Your task to perform on an android device: allow cookies in the chrome app Image 0: 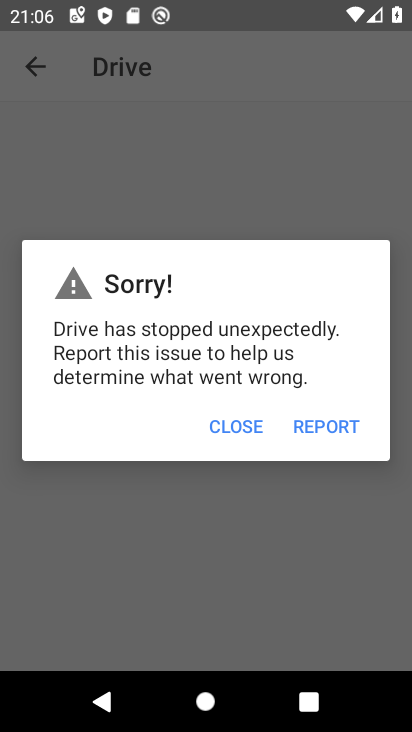
Step 0: press home button
Your task to perform on an android device: allow cookies in the chrome app Image 1: 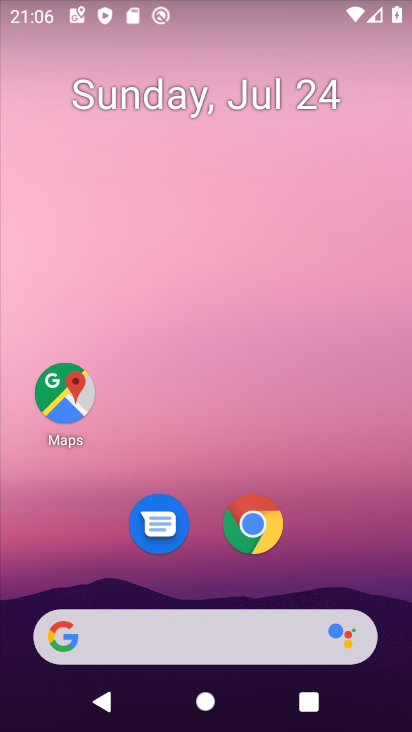
Step 1: click (253, 536)
Your task to perform on an android device: allow cookies in the chrome app Image 2: 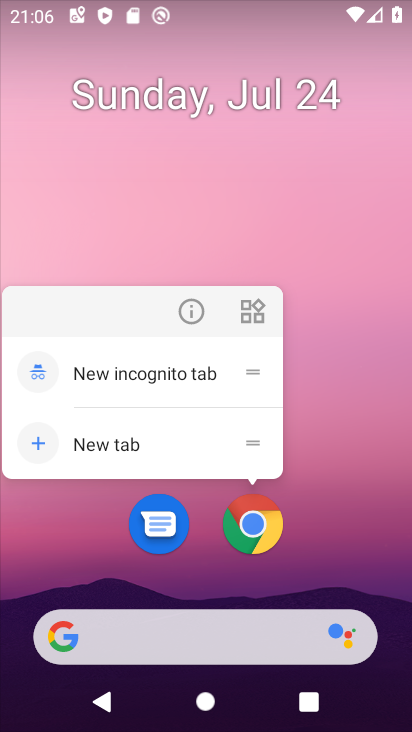
Step 2: click (256, 533)
Your task to perform on an android device: allow cookies in the chrome app Image 3: 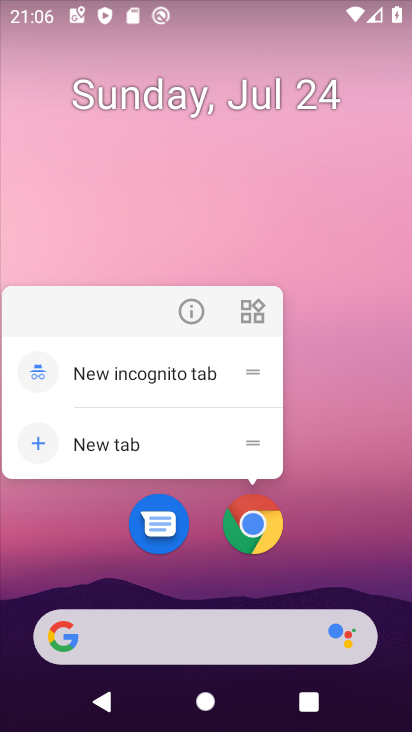
Step 3: click (256, 535)
Your task to perform on an android device: allow cookies in the chrome app Image 4: 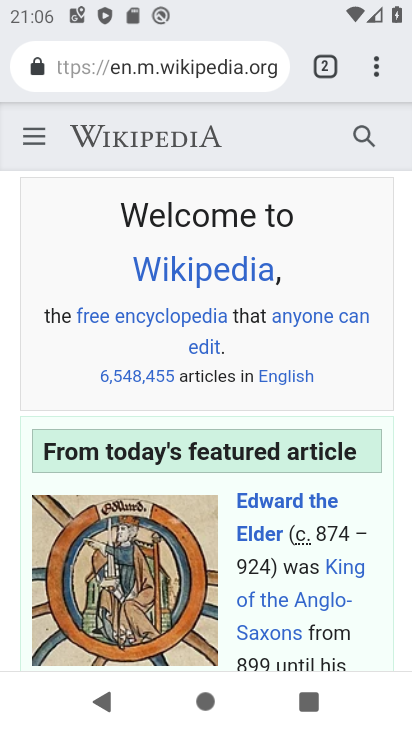
Step 4: drag from (377, 66) to (230, 524)
Your task to perform on an android device: allow cookies in the chrome app Image 5: 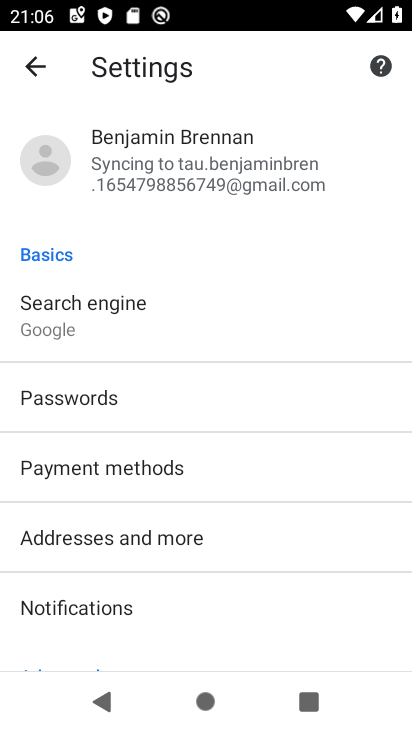
Step 5: drag from (195, 592) to (354, 317)
Your task to perform on an android device: allow cookies in the chrome app Image 6: 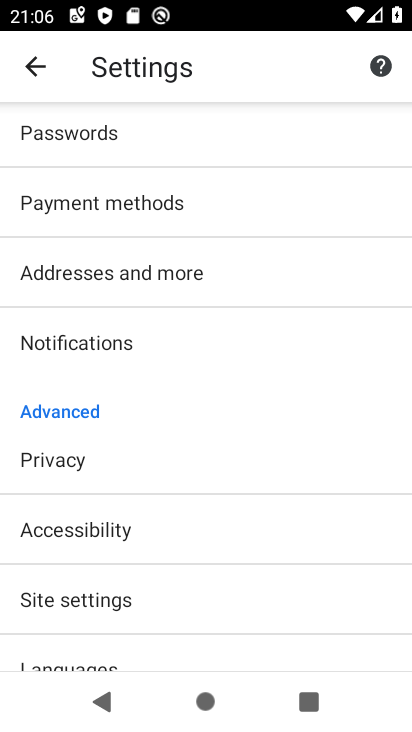
Step 6: click (87, 603)
Your task to perform on an android device: allow cookies in the chrome app Image 7: 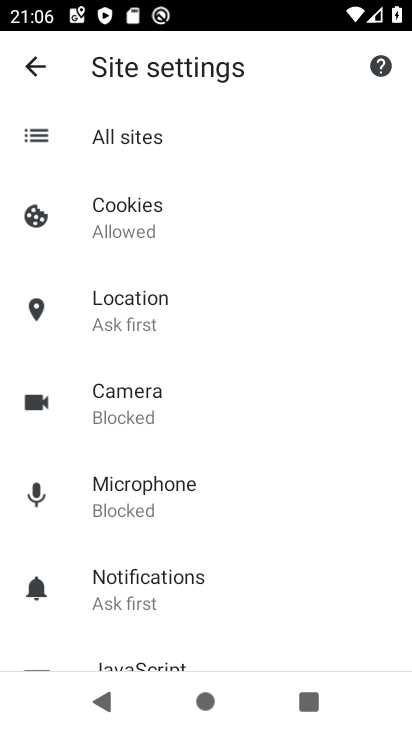
Step 7: click (143, 225)
Your task to perform on an android device: allow cookies in the chrome app Image 8: 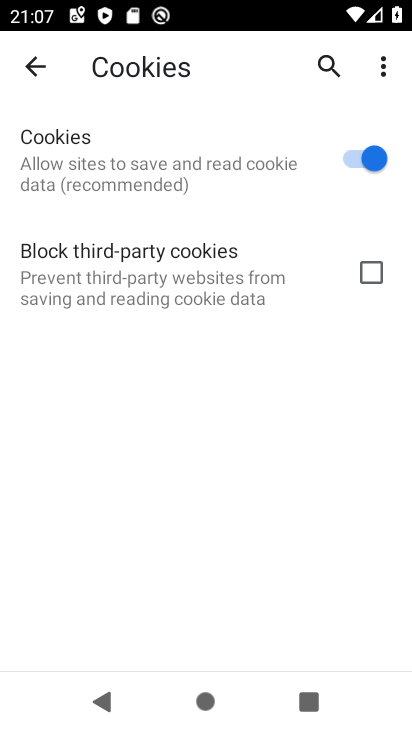
Step 8: task complete